Your task to perform on an android device: toggle priority inbox in the gmail app Image 0: 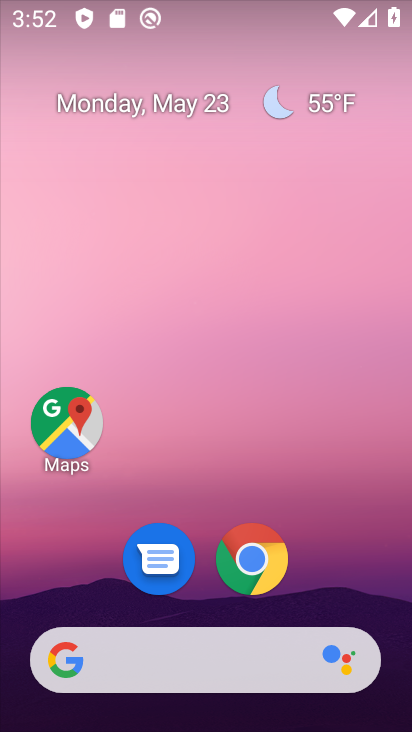
Step 0: drag from (290, 581) to (213, 185)
Your task to perform on an android device: toggle priority inbox in the gmail app Image 1: 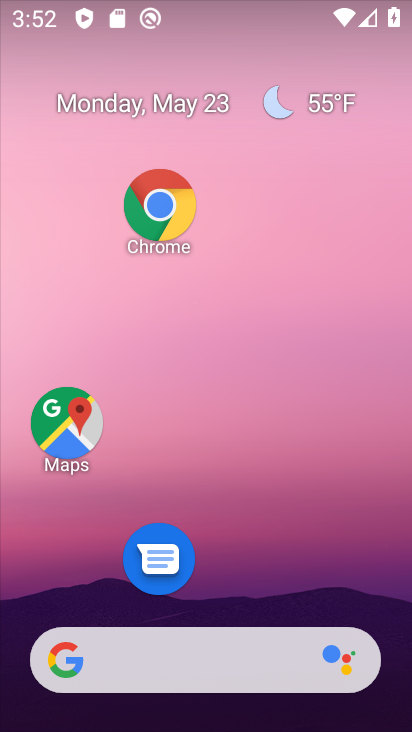
Step 1: drag from (316, 626) to (163, 118)
Your task to perform on an android device: toggle priority inbox in the gmail app Image 2: 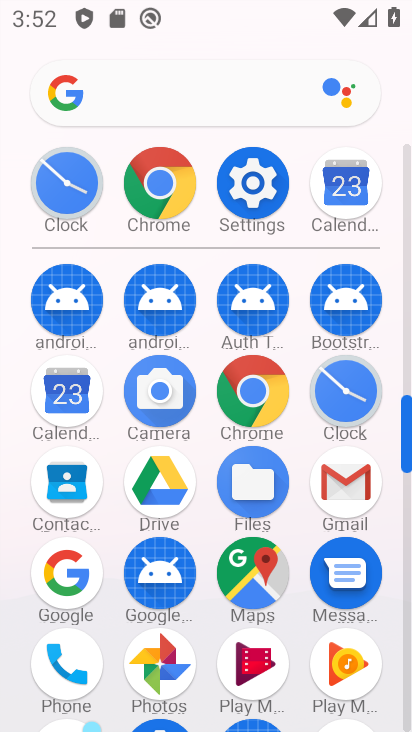
Step 2: click (353, 476)
Your task to perform on an android device: toggle priority inbox in the gmail app Image 3: 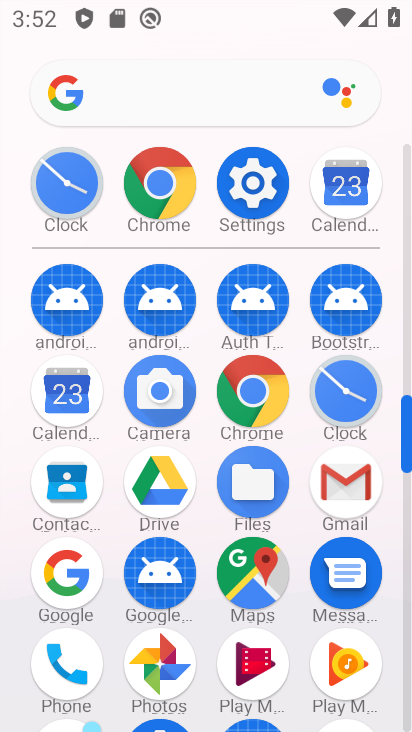
Step 3: click (349, 476)
Your task to perform on an android device: toggle priority inbox in the gmail app Image 4: 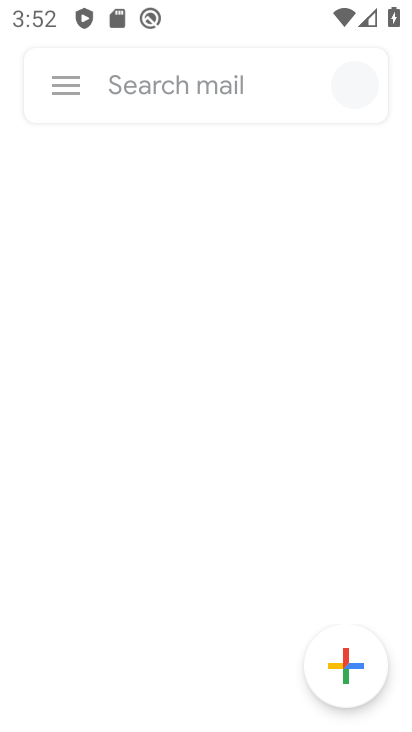
Step 4: click (349, 476)
Your task to perform on an android device: toggle priority inbox in the gmail app Image 5: 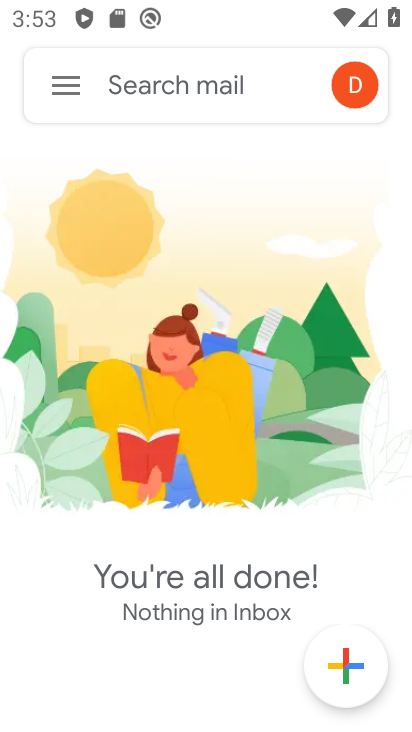
Step 5: click (73, 81)
Your task to perform on an android device: toggle priority inbox in the gmail app Image 6: 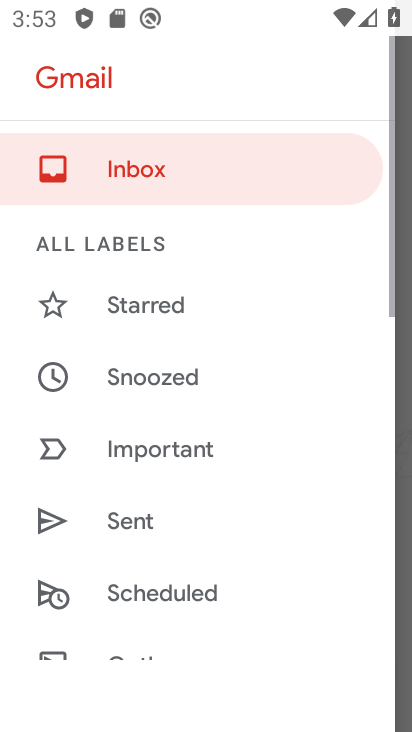
Step 6: click (73, 81)
Your task to perform on an android device: toggle priority inbox in the gmail app Image 7: 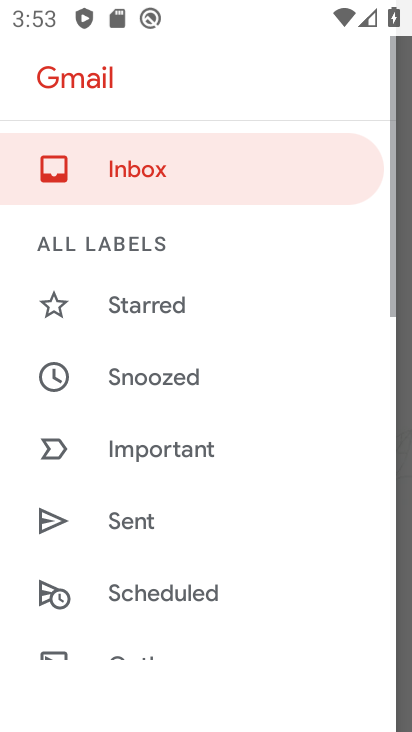
Step 7: click (73, 85)
Your task to perform on an android device: toggle priority inbox in the gmail app Image 8: 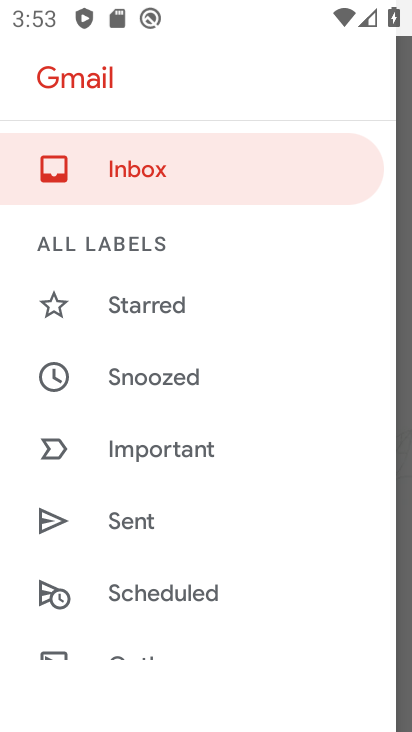
Step 8: drag from (148, 506) to (137, 270)
Your task to perform on an android device: toggle priority inbox in the gmail app Image 9: 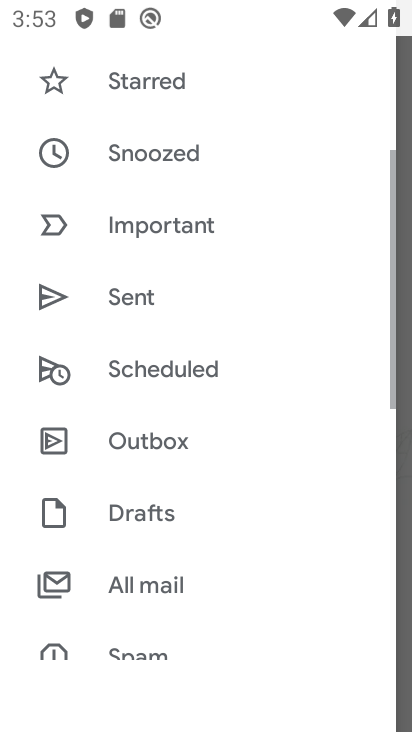
Step 9: drag from (144, 451) to (168, 226)
Your task to perform on an android device: toggle priority inbox in the gmail app Image 10: 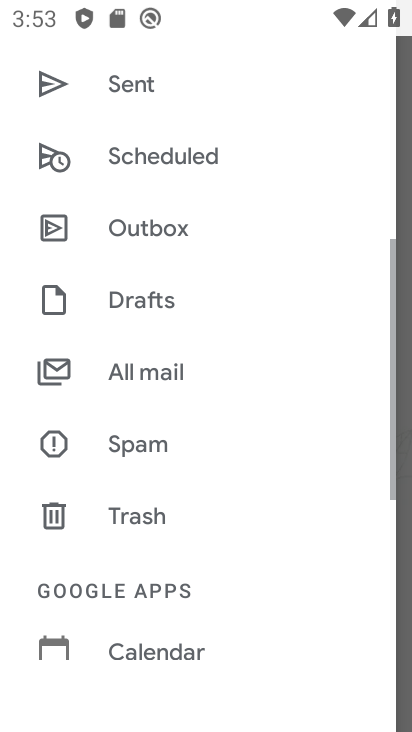
Step 10: drag from (168, 480) to (95, 181)
Your task to perform on an android device: toggle priority inbox in the gmail app Image 11: 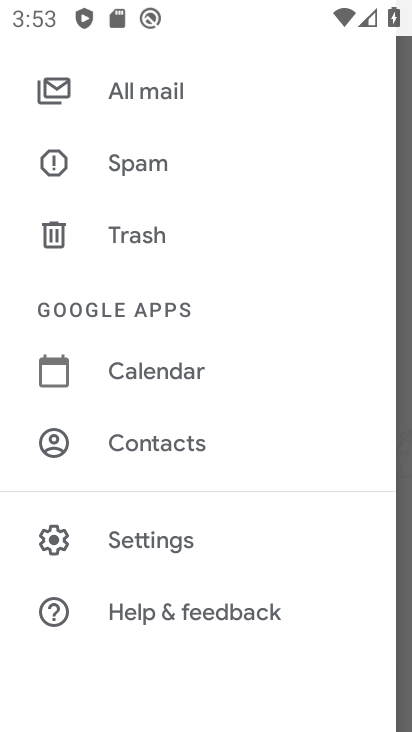
Step 11: click (148, 549)
Your task to perform on an android device: toggle priority inbox in the gmail app Image 12: 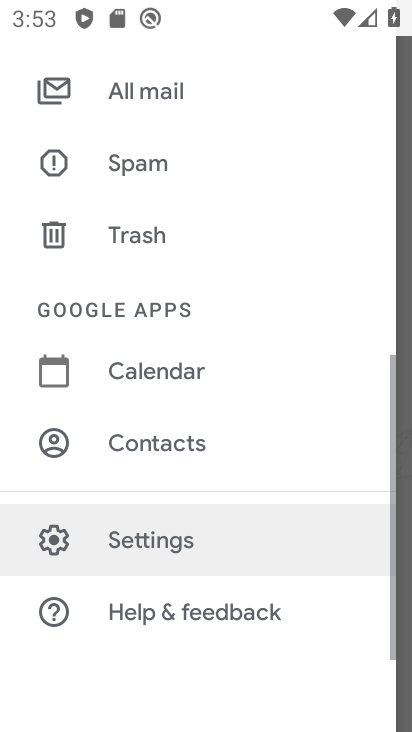
Step 12: click (149, 549)
Your task to perform on an android device: toggle priority inbox in the gmail app Image 13: 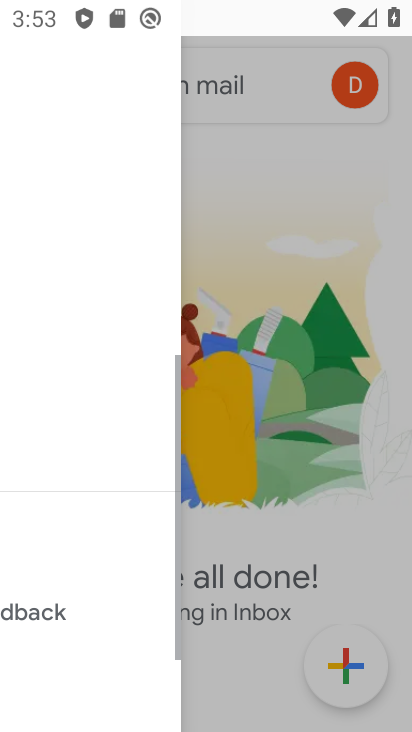
Step 13: click (150, 547)
Your task to perform on an android device: toggle priority inbox in the gmail app Image 14: 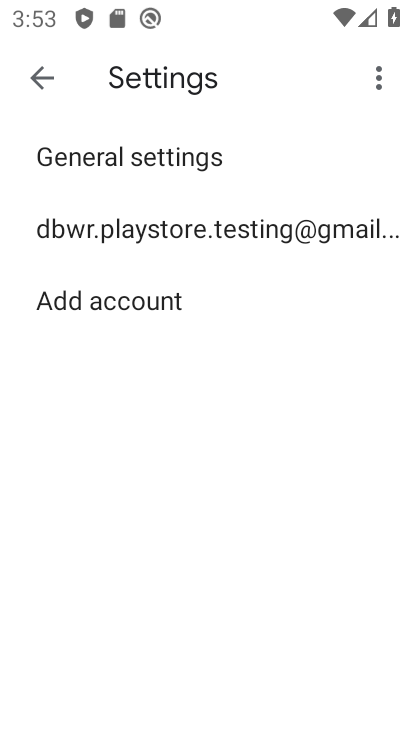
Step 14: click (147, 219)
Your task to perform on an android device: toggle priority inbox in the gmail app Image 15: 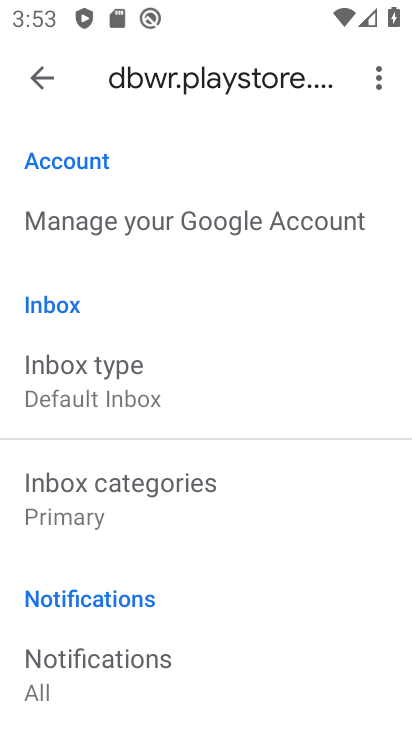
Step 15: click (153, 244)
Your task to perform on an android device: toggle priority inbox in the gmail app Image 16: 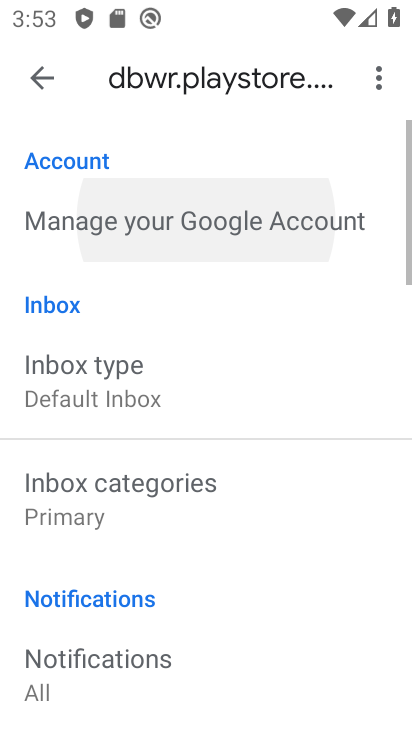
Step 16: click (164, 231)
Your task to perform on an android device: toggle priority inbox in the gmail app Image 17: 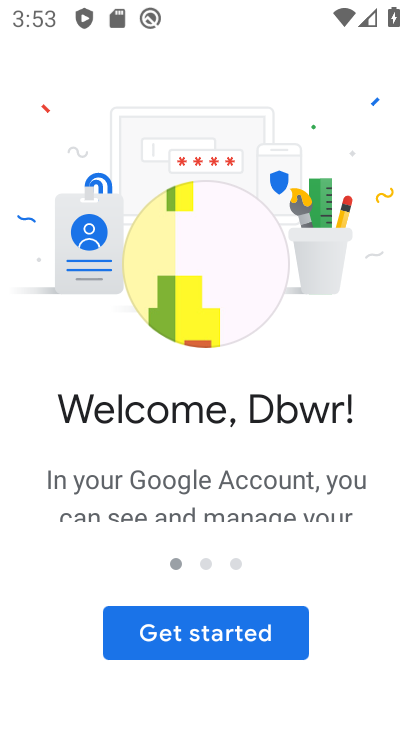
Step 17: click (211, 623)
Your task to perform on an android device: toggle priority inbox in the gmail app Image 18: 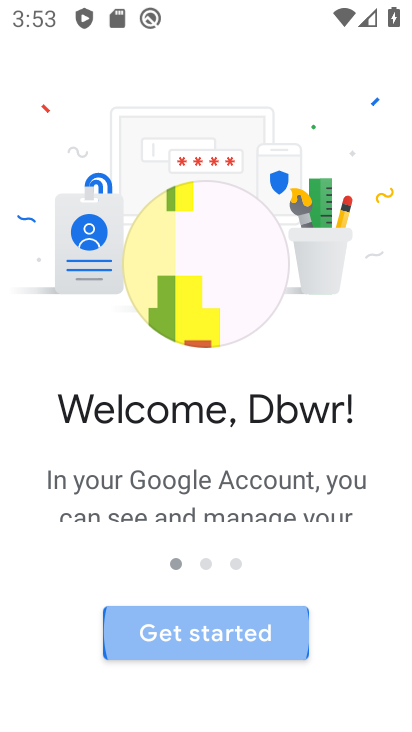
Step 18: click (211, 623)
Your task to perform on an android device: toggle priority inbox in the gmail app Image 19: 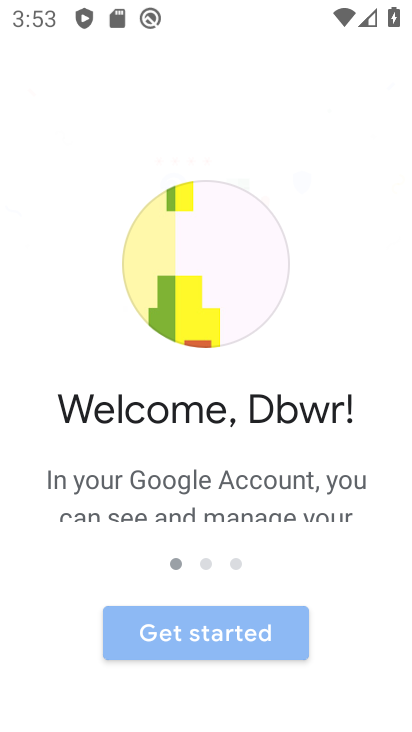
Step 19: click (211, 623)
Your task to perform on an android device: toggle priority inbox in the gmail app Image 20: 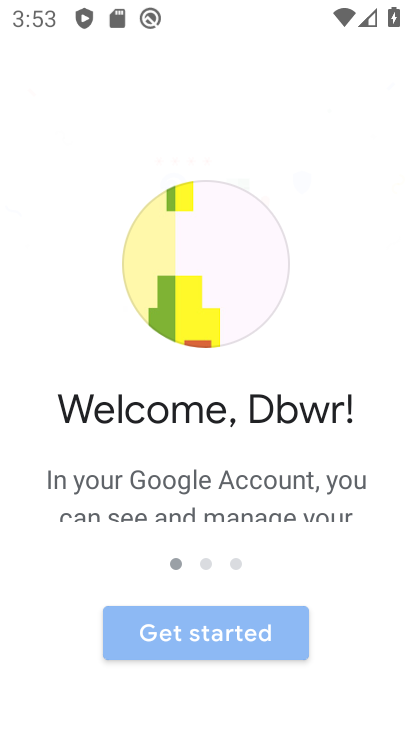
Step 20: click (211, 623)
Your task to perform on an android device: toggle priority inbox in the gmail app Image 21: 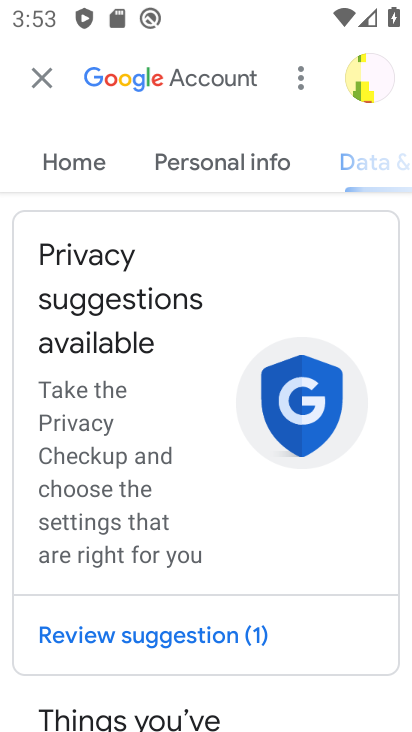
Step 21: press back button
Your task to perform on an android device: toggle priority inbox in the gmail app Image 22: 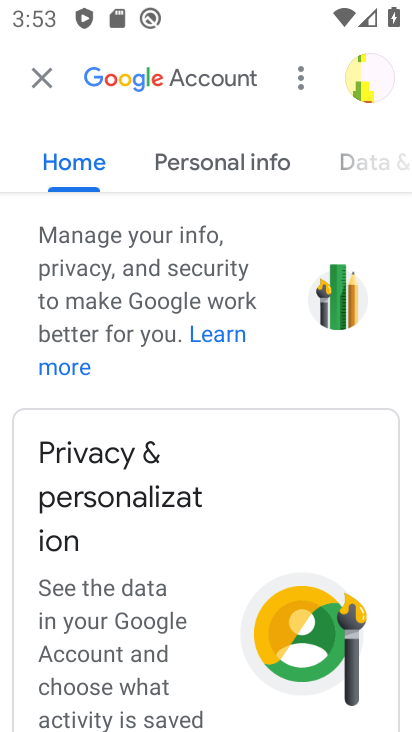
Step 22: click (33, 80)
Your task to perform on an android device: toggle priority inbox in the gmail app Image 23: 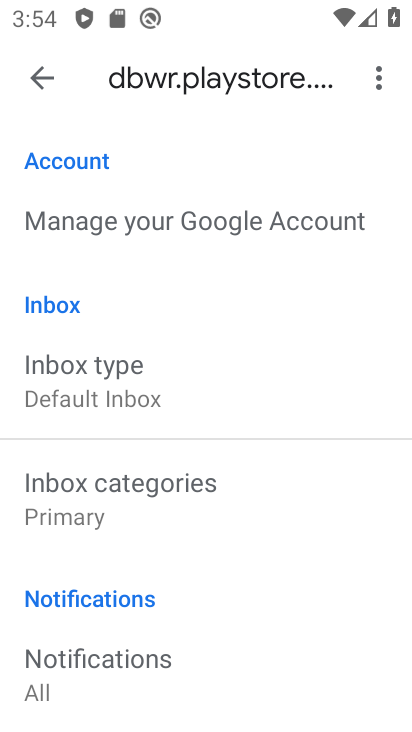
Step 23: click (92, 392)
Your task to perform on an android device: toggle priority inbox in the gmail app Image 24: 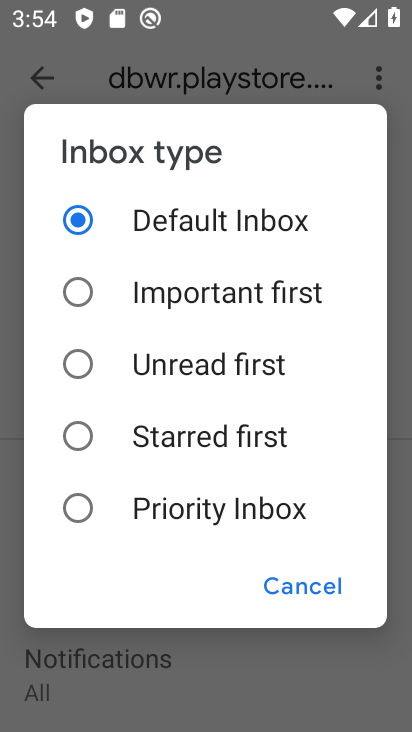
Step 24: click (80, 505)
Your task to perform on an android device: toggle priority inbox in the gmail app Image 25: 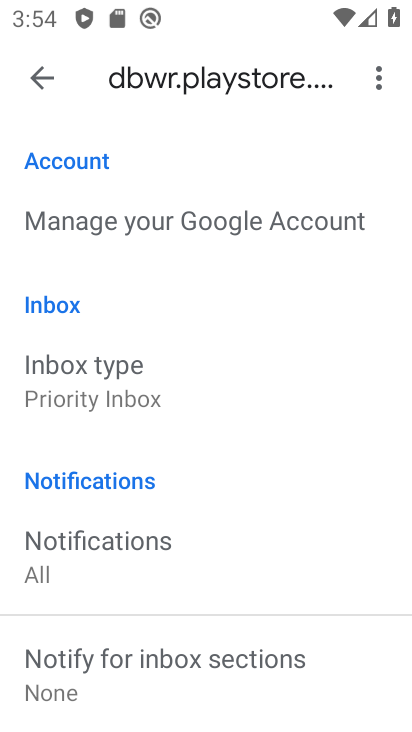
Step 25: task complete